Your task to perform on an android device: Search for sushi restaurants on Maps Image 0: 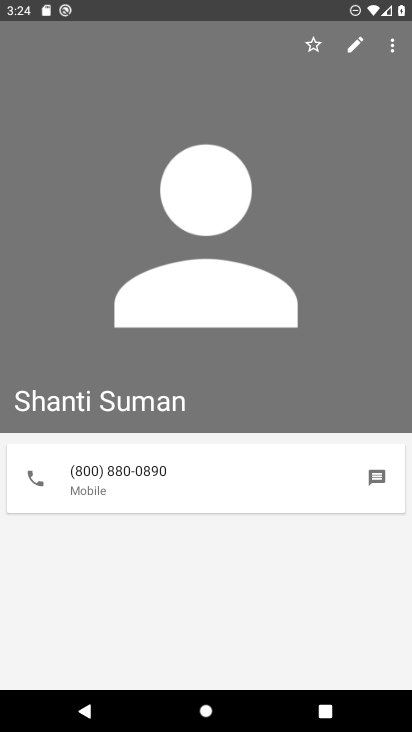
Step 0: press home button
Your task to perform on an android device: Search for sushi restaurants on Maps Image 1: 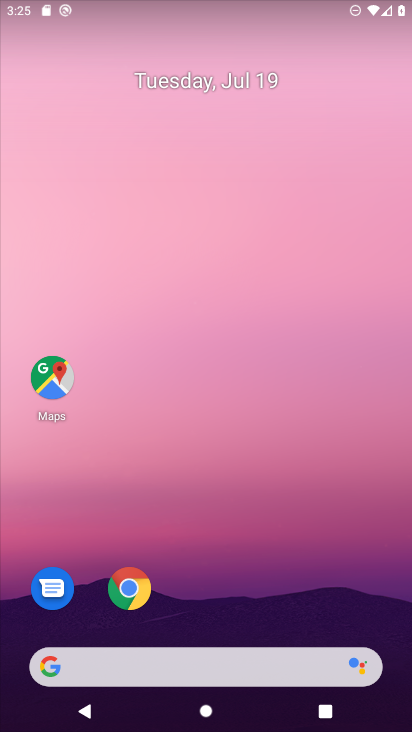
Step 1: click (52, 376)
Your task to perform on an android device: Search for sushi restaurants on Maps Image 2: 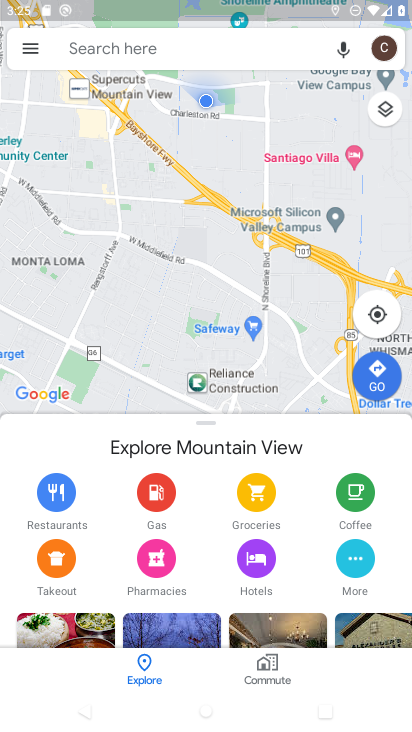
Step 2: click (120, 64)
Your task to perform on an android device: Search for sushi restaurants on Maps Image 3: 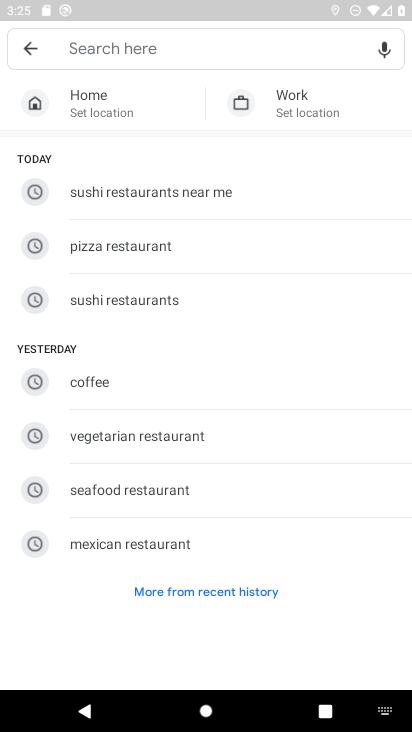
Step 3: click (147, 297)
Your task to perform on an android device: Search for sushi restaurants on Maps Image 4: 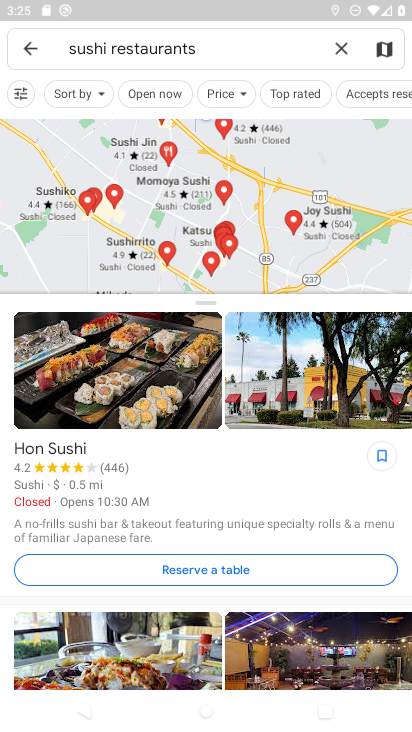
Step 4: task complete